Your task to perform on an android device: Open calendar and show me the fourth week of next month Image 0: 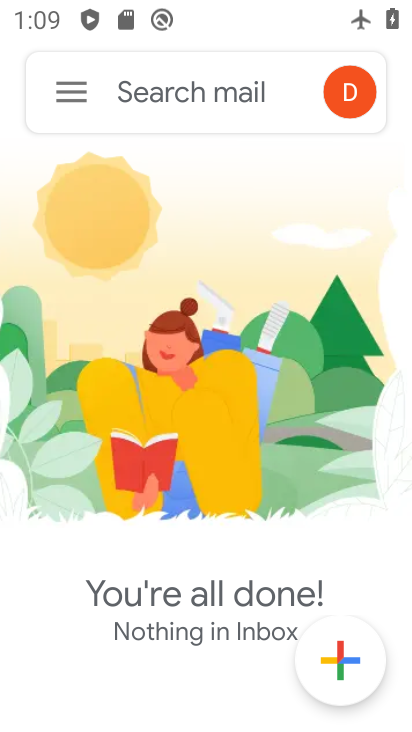
Step 0: press home button
Your task to perform on an android device: Open calendar and show me the fourth week of next month Image 1: 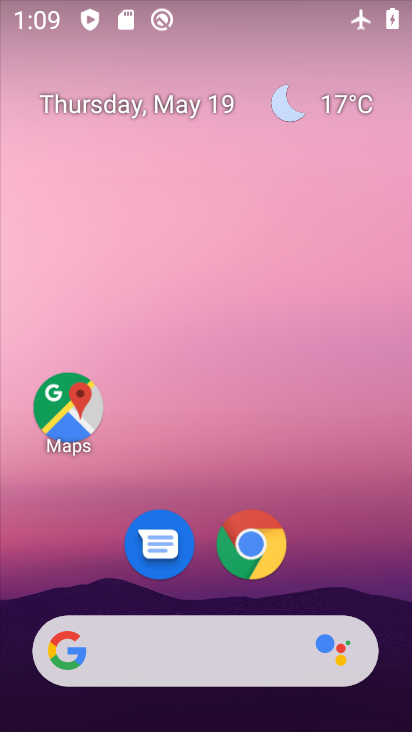
Step 1: drag from (208, 729) to (205, 152)
Your task to perform on an android device: Open calendar and show me the fourth week of next month Image 2: 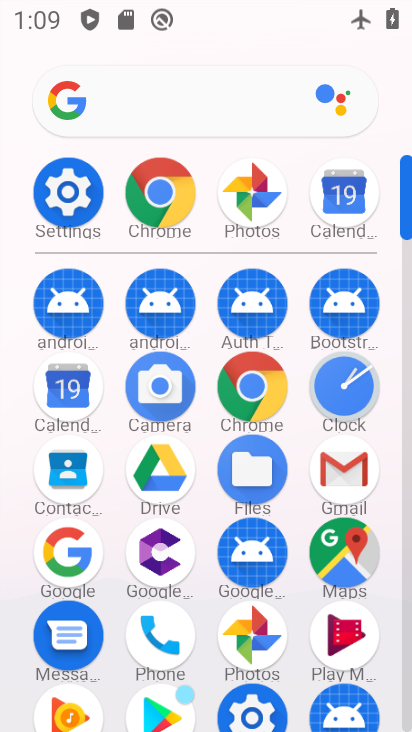
Step 2: click (65, 382)
Your task to perform on an android device: Open calendar and show me the fourth week of next month Image 3: 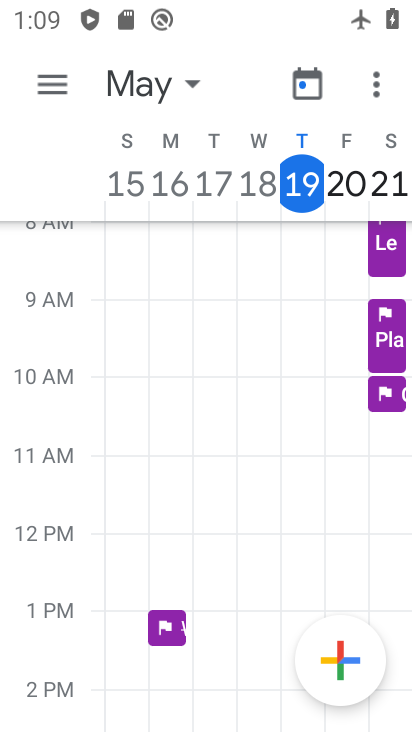
Step 3: click (194, 77)
Your task to perform on an android device: Open calendar and show me the fourth week of next month Image 4: 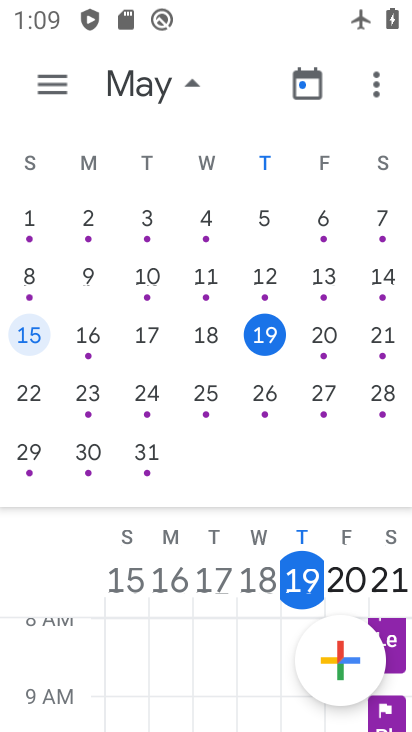
Step 4: drag from (370, 287) to (0, 271)
Your task to perform on an android device: Open calendar and show me the fourth week of next month Image 5: 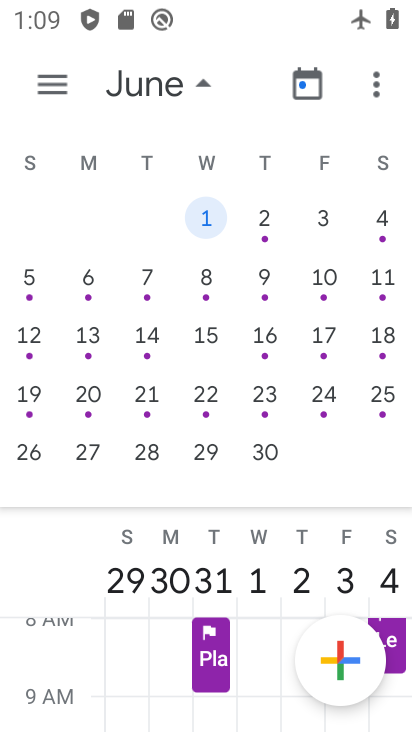
Step 5: click (84, 444)
Your task to perform on an android device: Open calendar and show me the fourth week of next month Image 6: 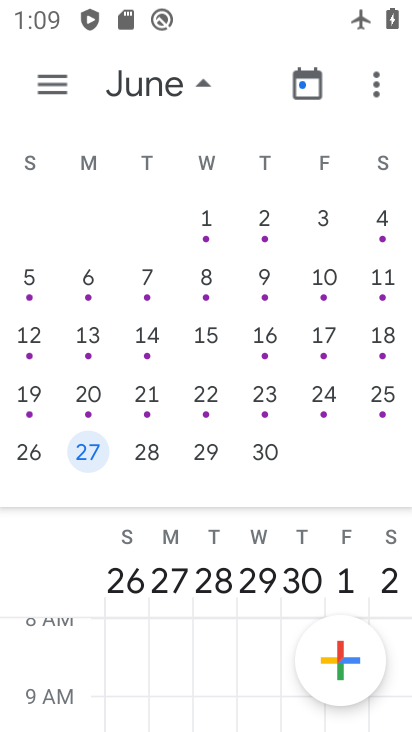
Step 6: click (59, 81)
Your task to perform on an android device: Open calendar and show me the fourth week of next month Image 7: 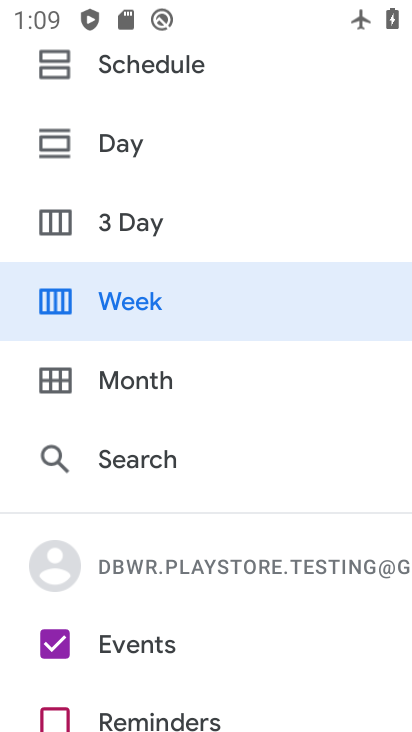
Step 7: click (125, 290)
Your task to perform on an android device: Open calendar and show me the fourth week of next month Image 8: 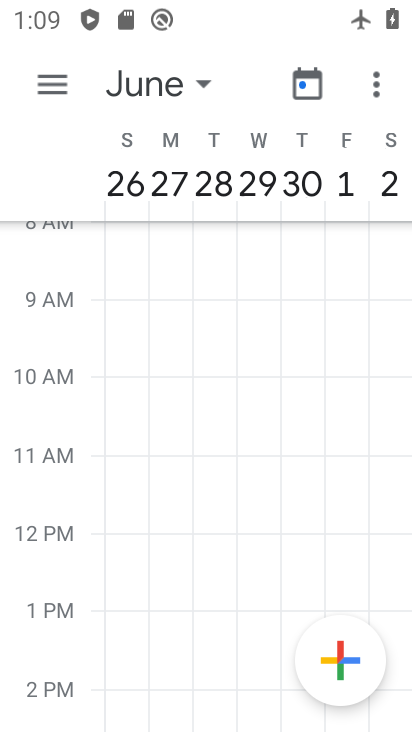
Step 8: task complete